Your task to perform on an android device: Open settings on Google Maps Image 0: 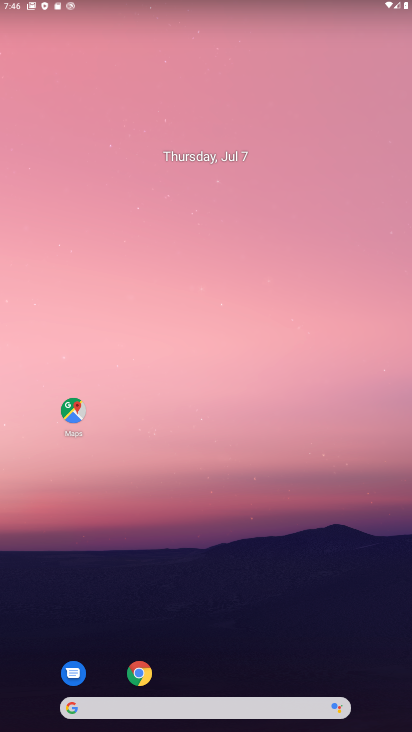
Step 0: drag from (190, 686) to (111, 67)
Your task to perform on an android device: Open settings on Google Maps Image 1: 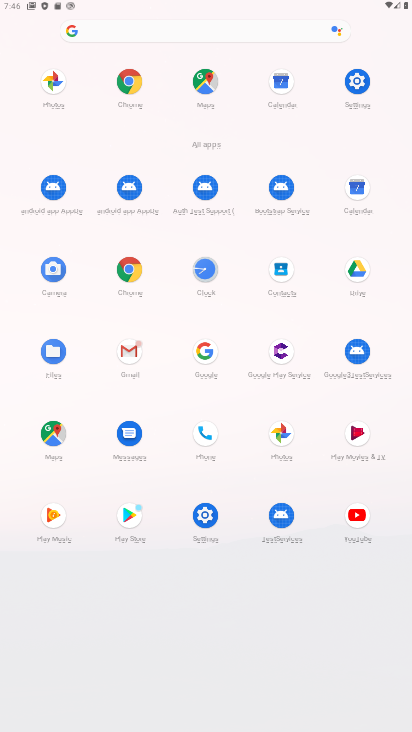
Step 1: click (56, 436)
Your task to perform on an android device: Open settings on Google Maps Image 2: 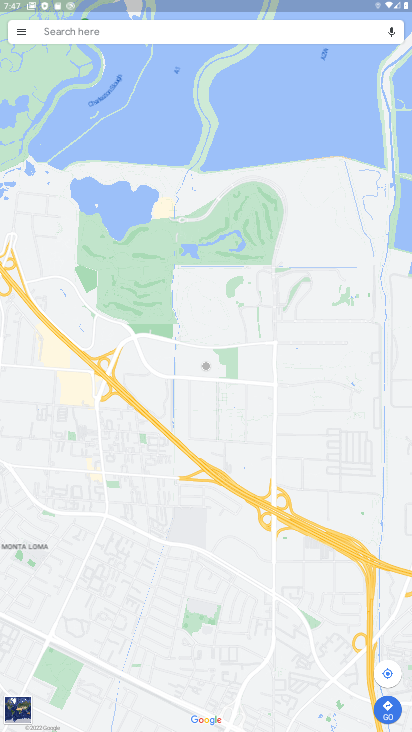
Step 2: click (20, 26)
Your task to perform on an android device: Open settings on Google Maps Image 3: 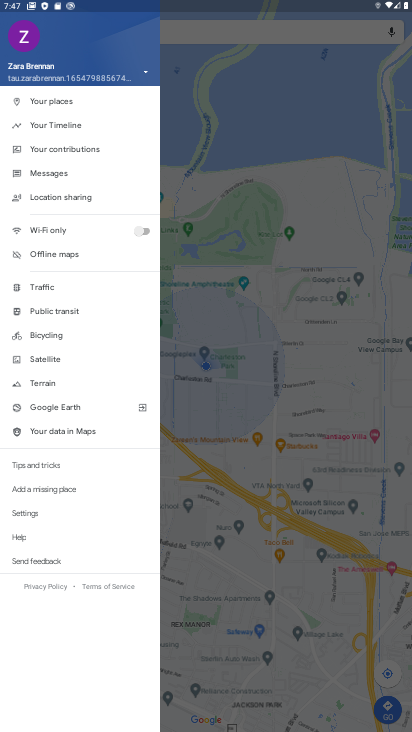
Step 3: click (36, 511)
Your task to perform on an android device: Open settings on Google Maps Image 4: 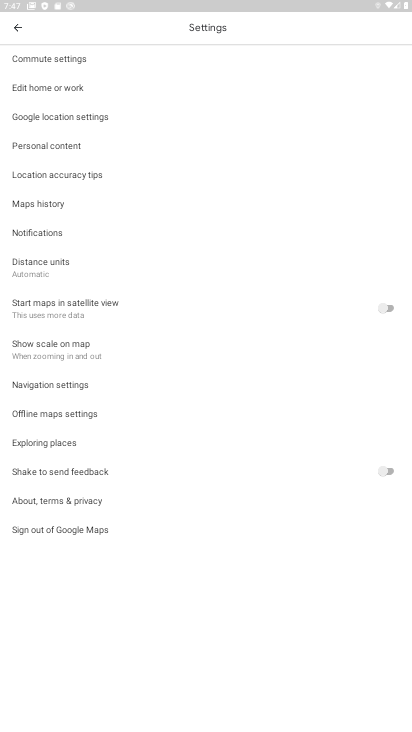
Step 4: task complete